Your task to perform on an android device: check battery use Image 0: 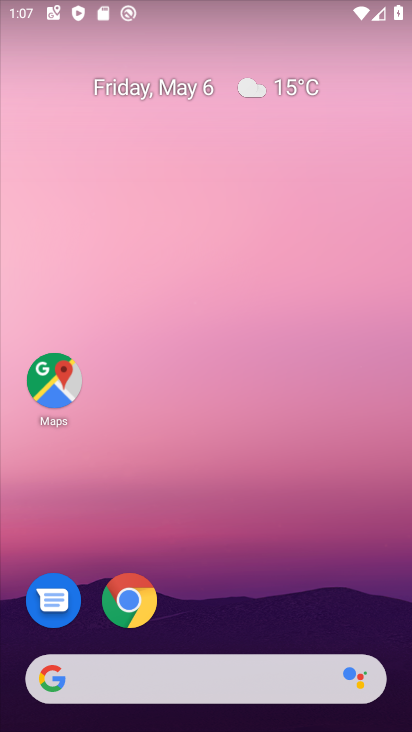
Step 0: drag from (323, 613) to (361, 22)
Your task to perform on an android device: check battery use Image 1: 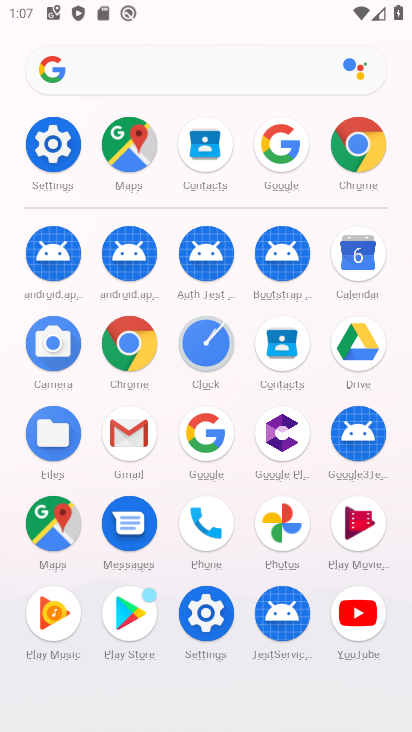
Step 1: click (222, 629)
Your task to perform on an android device: check battery use Image 2: 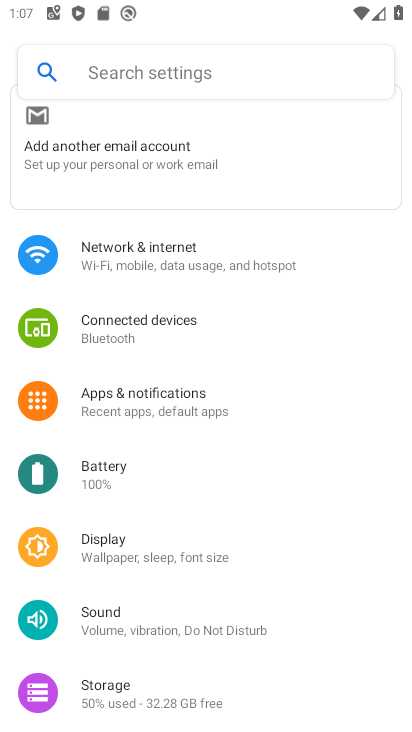
Step 2: click (187, 477)
Your task to perform on an android device: check battery use Image 3: 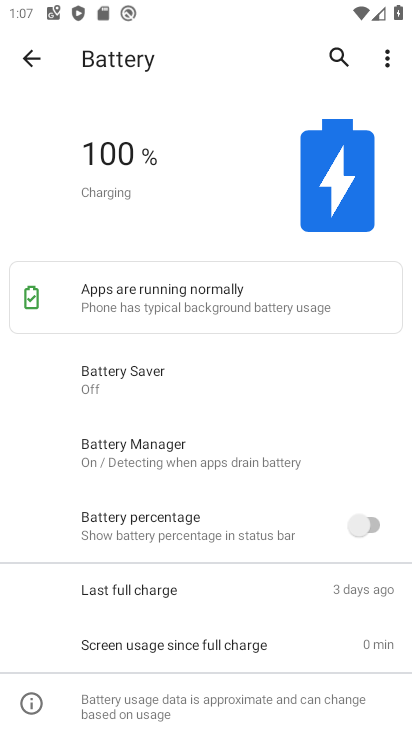
Step 3: task complete